Your task to perform on an android device: add a label to a message in the gmail app Image 0: 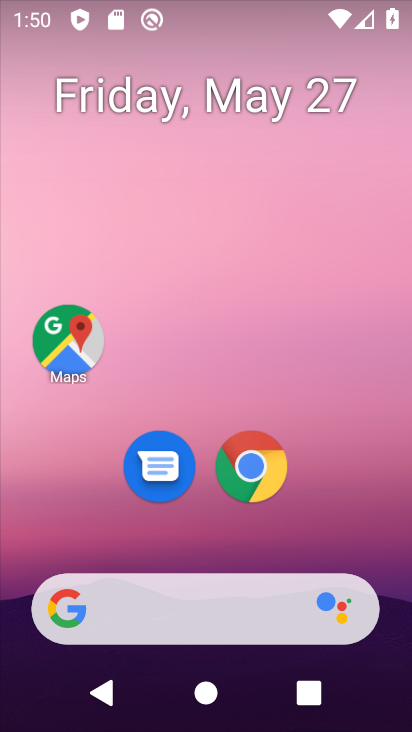
Step 0: drag from (355, 540) to (308, 58)
Your task to perform on an android device: add a label to a message in the gmail app Image 1: 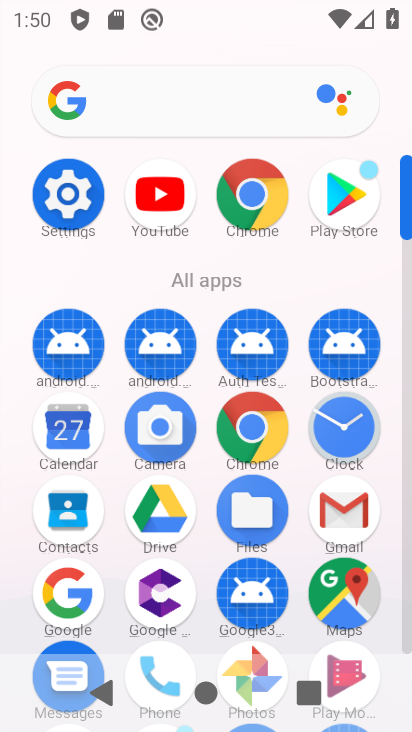
Step 1: click (336, 496)
Your task to perform on an android device: add a label to a message in the gmail app Image 2: 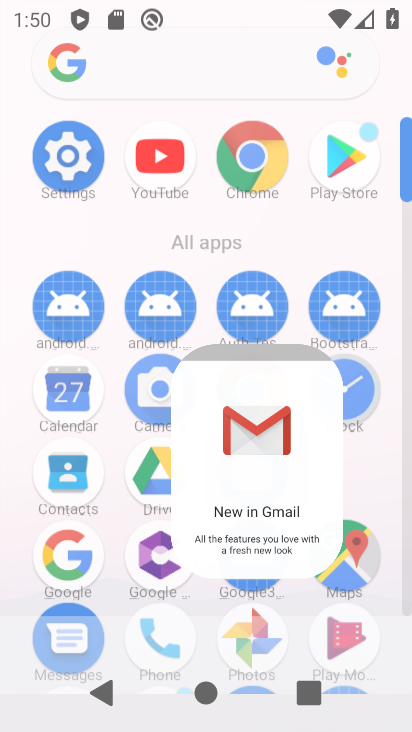
Step 2: click (336, 495)
Your task to perform on an android device: add a label to a message in the gmail app Image 3: 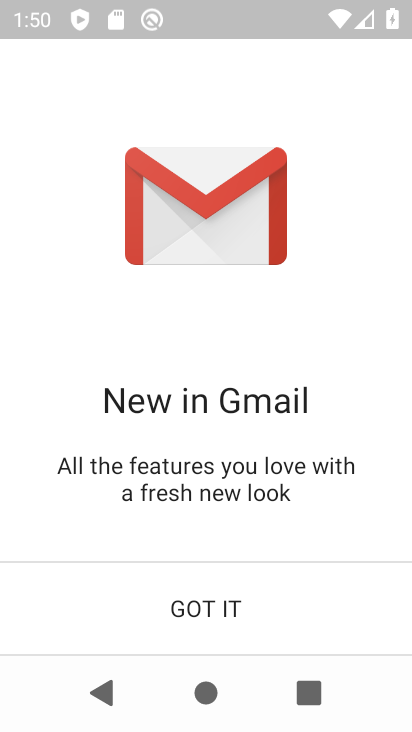
Step 3: click (220, 574)
Your task to perform on an android device: add a label to a message in the gmail app Image 4: 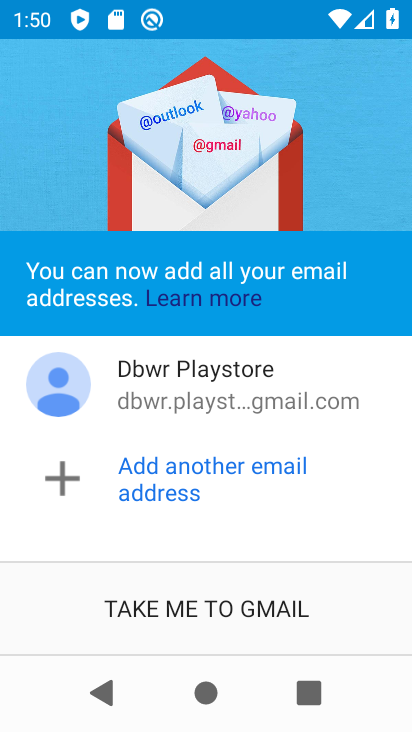
Step 4: click (223, 576)
Your task to perform on an android device: add a label to a message in the gmail app Image 5: 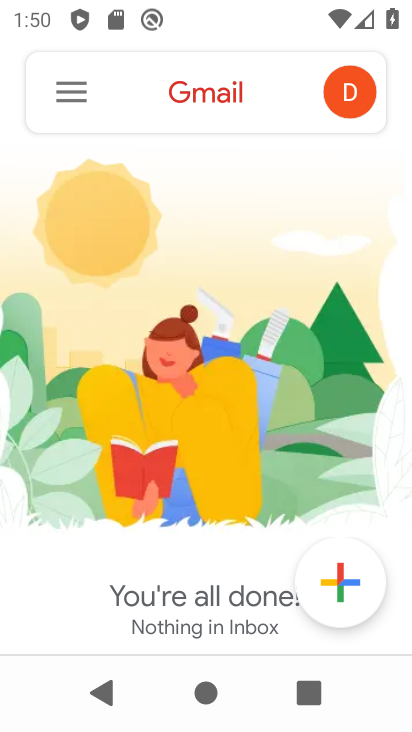
Step 5: click (62, 78)
Your task to perform on an android device: add a label to a message in the gmail app Image 6: 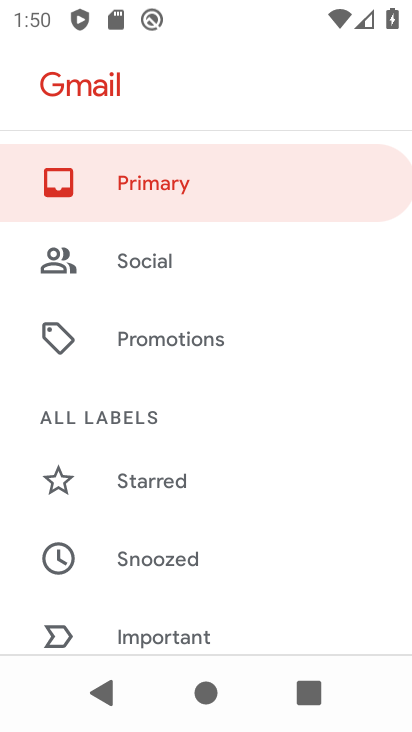
Step 6: drag from (220, 609) to (135, 374)
Your task to perform on an android device: add a label to a message in the gmail app Image 7: 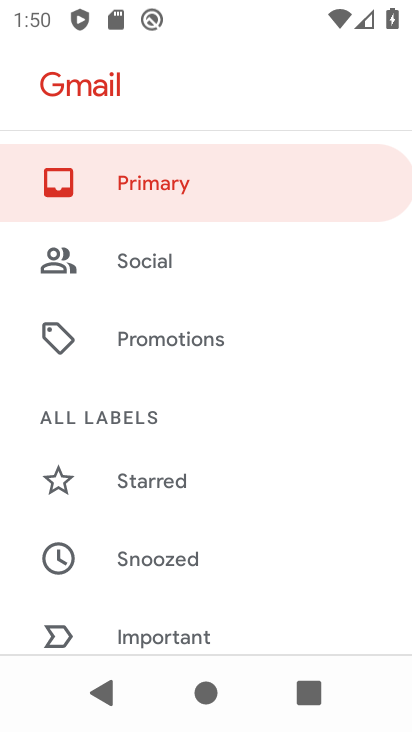
Step 7: drag from (172, 653) to (142, 243)
Your task to perform on an android device: add a label to a message in the gmail app Image 8: 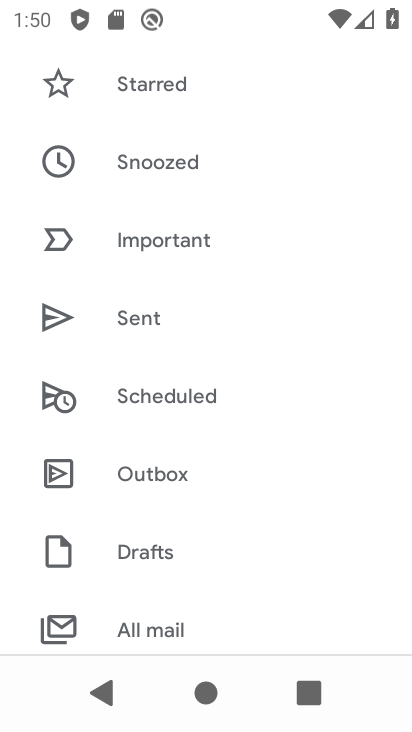
Step 8: click (117, 631)
Your task to perform on an android device: add a label to a message in the gmail app Image 9: 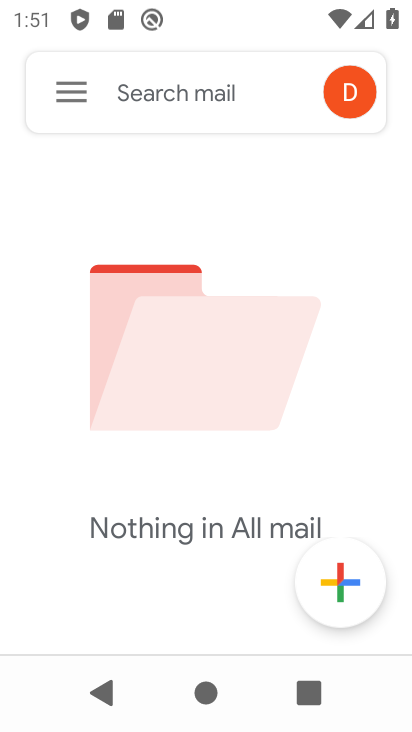
Step 9: task complete